Your task to perform on an android device: change notification settings in the gmail app Image 0: 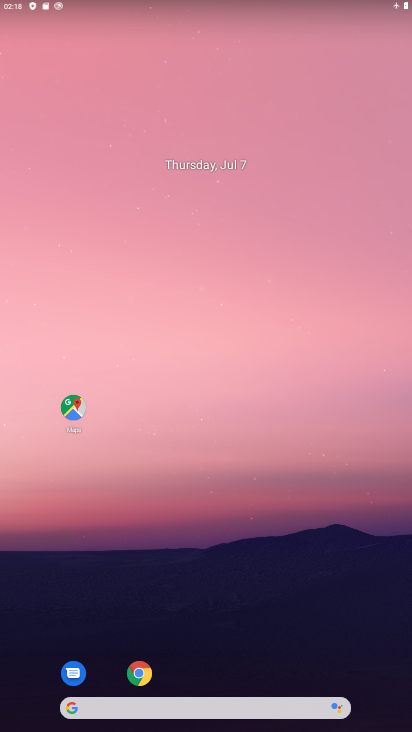
Step 0: drag from (231, 546) to (240, 139)
Your task to perform on an android device: change notification settings in the gmail app Image 1: 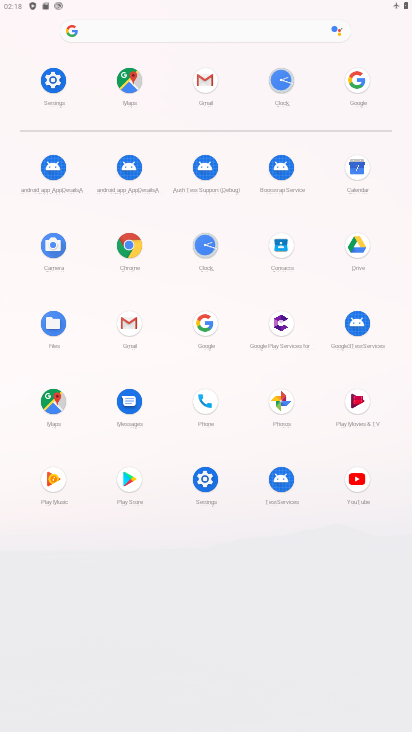
Step 1: click (201, 89)
Your task to perform on an android device: change notification settings in the gmail app Image 2: 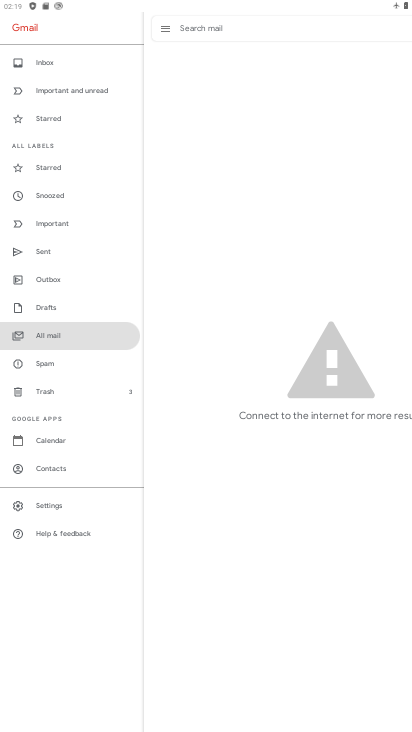
Step 2: click (68, 503)
Your task to perform on an android device: change notification settings in the gmail app Image 3: 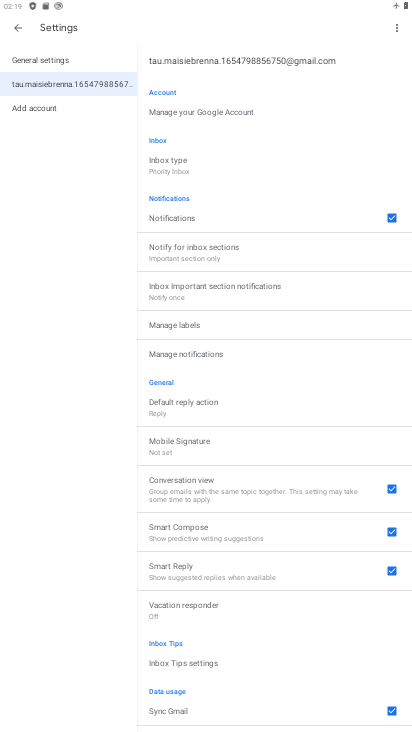
Step 3: click (35, 83)
Your task to perform on an android device: change notification settings in the gmail app Image 4: 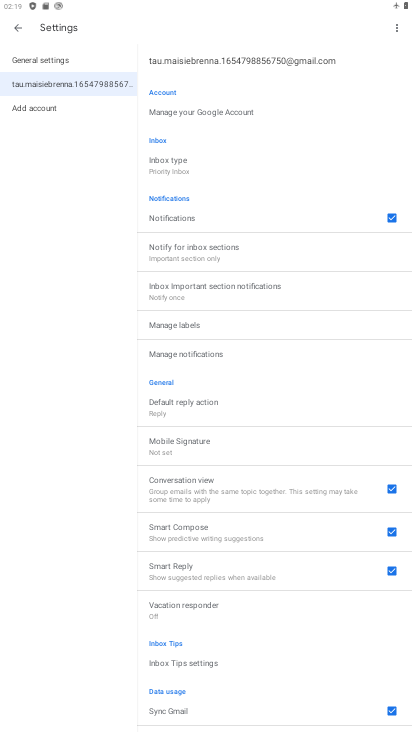
Step 4: click (203, 351)
Your task to perform on an android device: change notification settings in the gmail app Image 5: 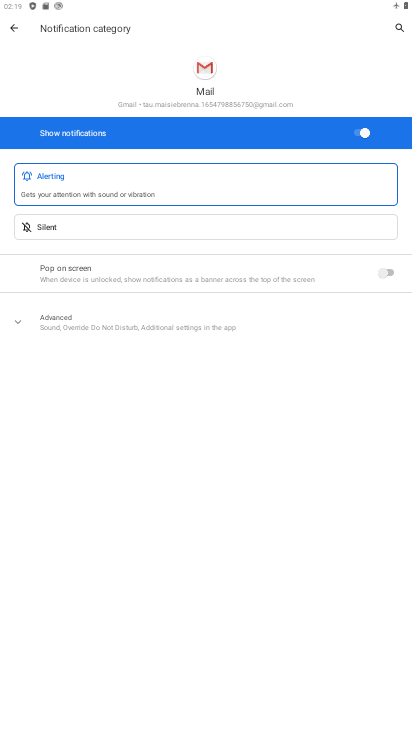
Step 5: click (356, 137)
Your task to perform on an android device: change notification settings in the gmail app Image 6: 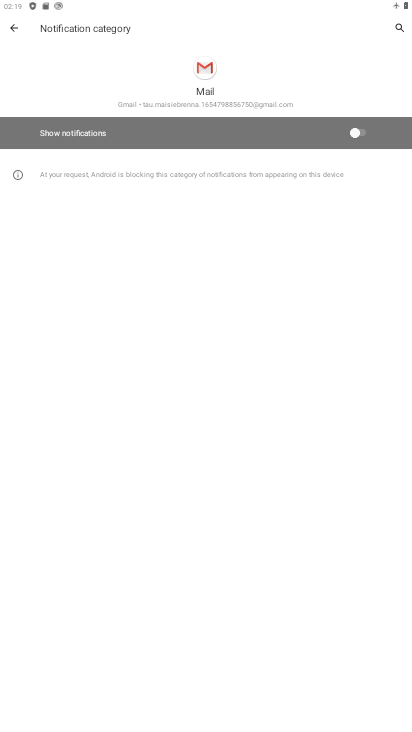
Step 6: task complete